Your task to perform on an android device: toggle location history Image 0: 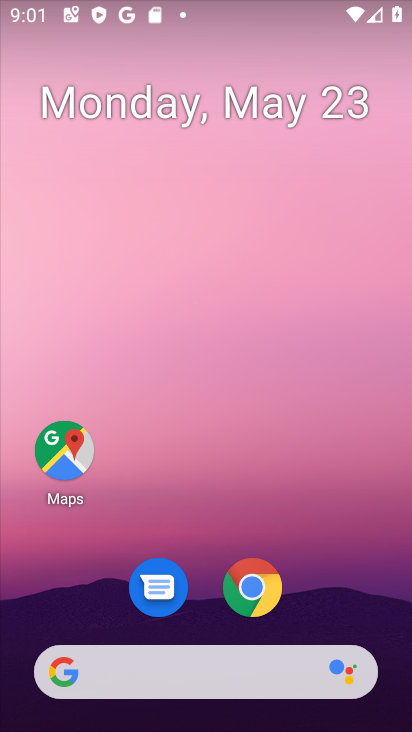
Step 0: drag from (207, 512) to (227, 46)
Your task to perform on an android device: toggle location history Image 1: 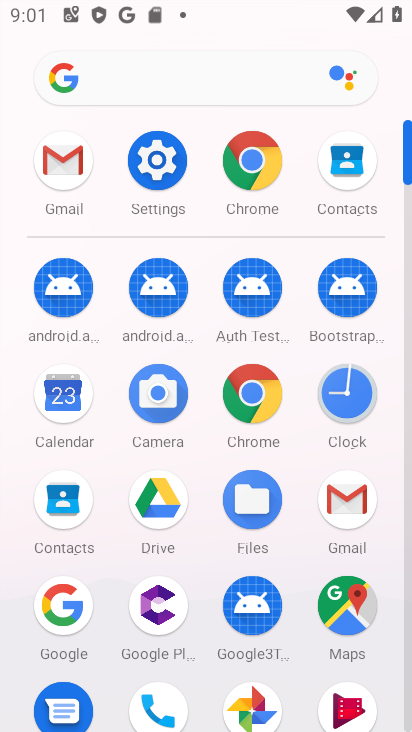
Step 1: click (158, 156)
Your task to perform on an android device: toggle location history Image 2: 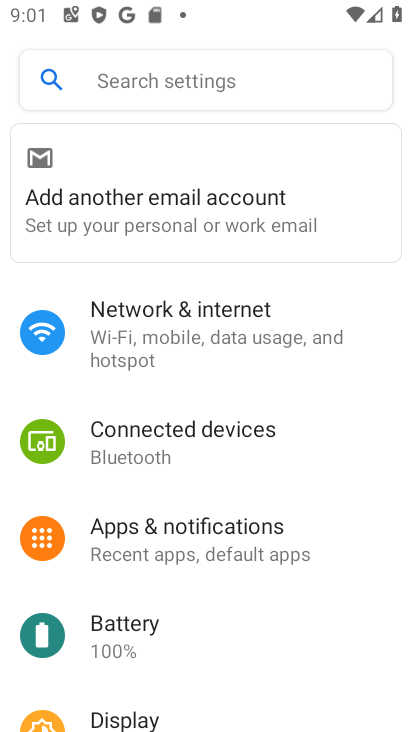
Step 2: drag from (158, 617) to (220, 198)
Your task to perform on an android device: toggle location history Image 3: 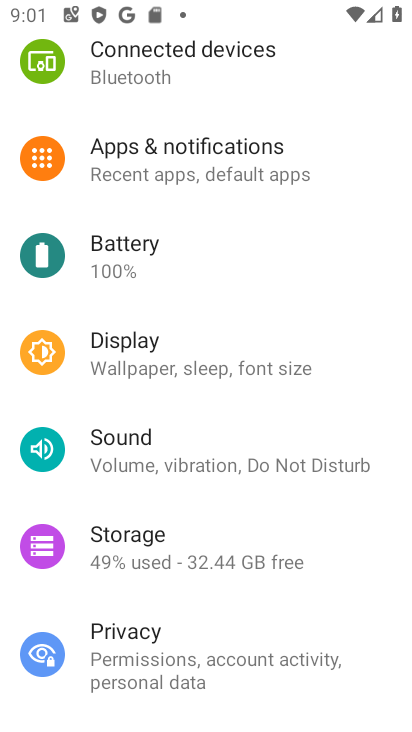
Step 3: drag from (145, 608) to (236, 288)
Your task to perform on an android device: toggle location history Image 4: 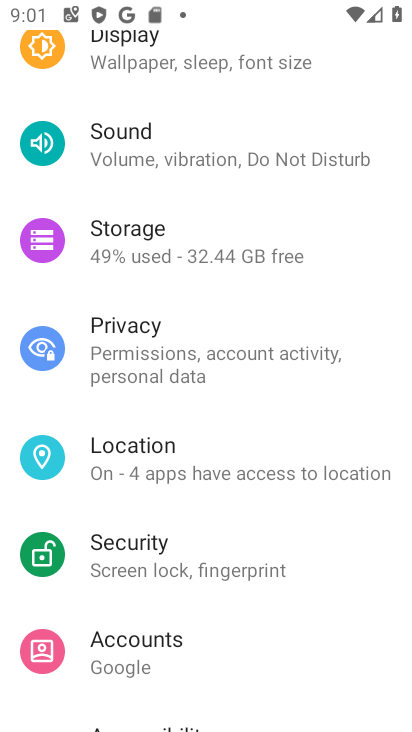
Step 4: click (180, 448)
Your task to perform on an android device: toggle location history Image 5: 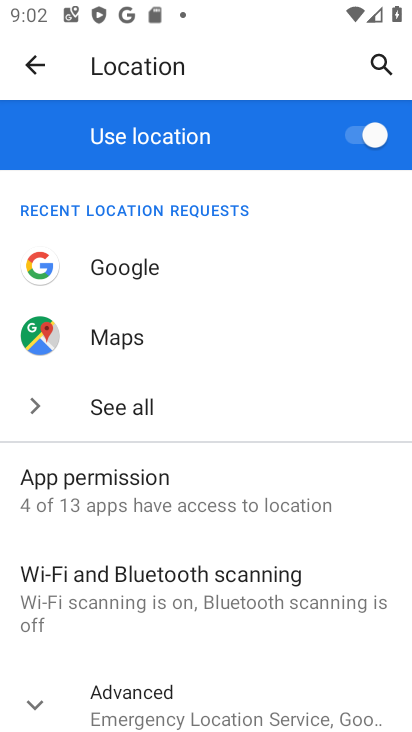
Step 5: click (180, 687)
Your task to perform on an android device: toggle location history Image 6: 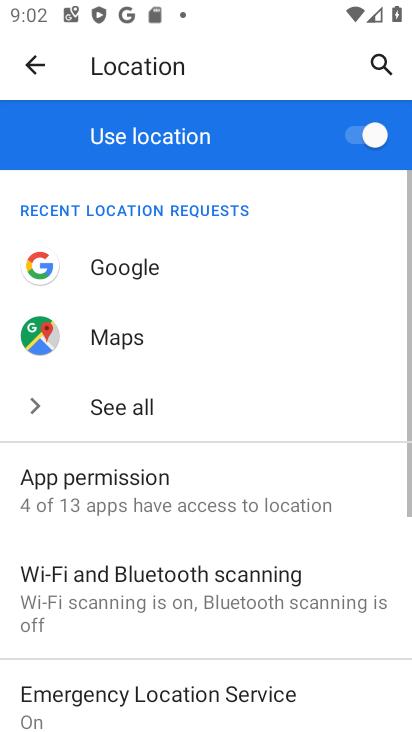
Step 6: drag from (181, 666) to (289, 242)
Your task to perform on an android device: toggle location history Image 7: 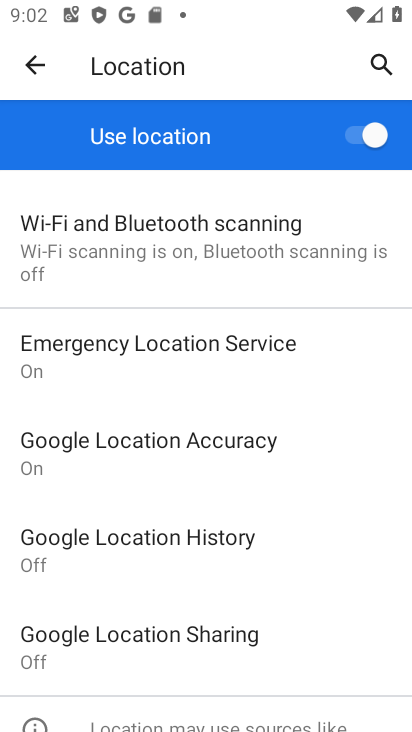
Step 7: click (145, 534)
Your task to perform on an android device: toggle location history Image 8: 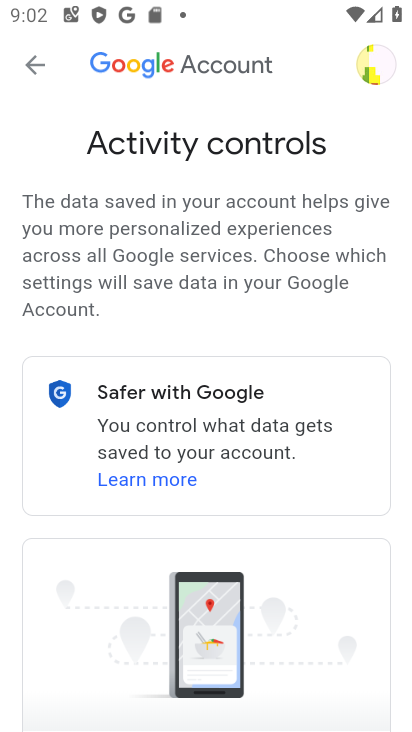
Step 8: drag from (222, 593) to (310, 113)
Your task to perform on an android device: toggle location history Image 9: 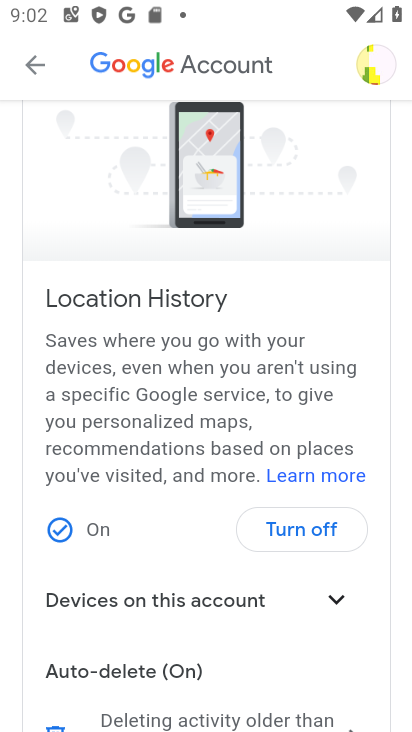
Step 9: click (308, 522)
Your task to perform on an android device: toggle location history Image 10: 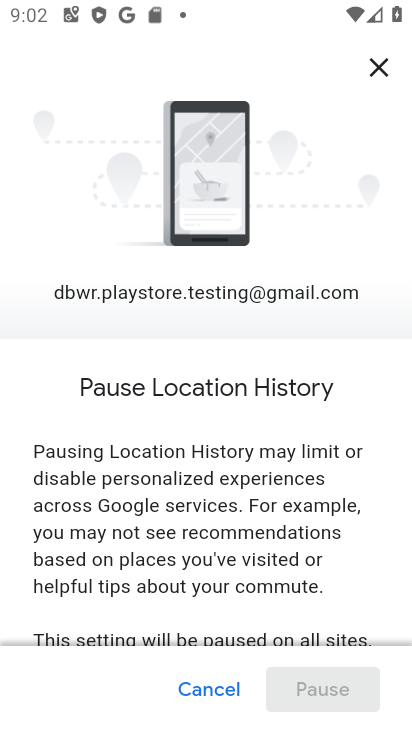
Step 10: drag from (270, 573) to (323, 69)
Your task to perform on an android device: toggle location history Image 11: 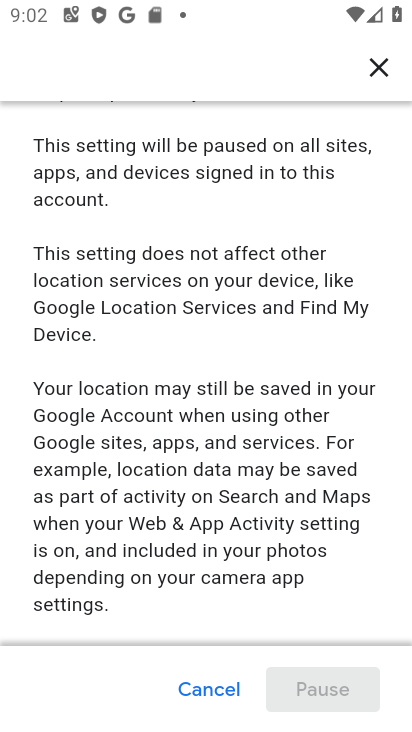
Step 11: drag from (248, 574) to (347, 40)
Your task to perform on an android device: toggle location history Image 12: 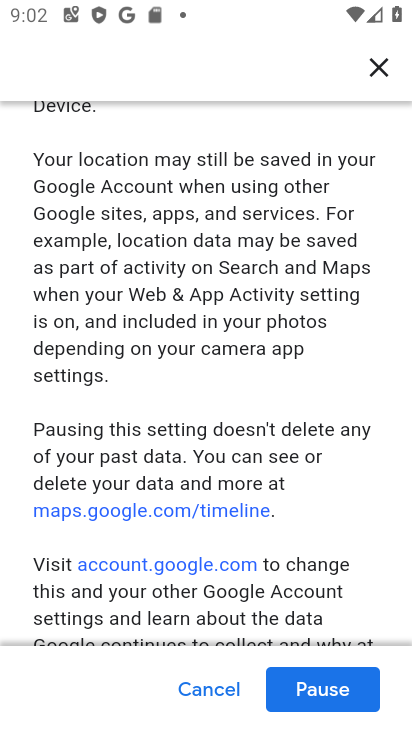
Step 12: click (309, 691)
Your task to perform on an android device: toggle location history Image 13: 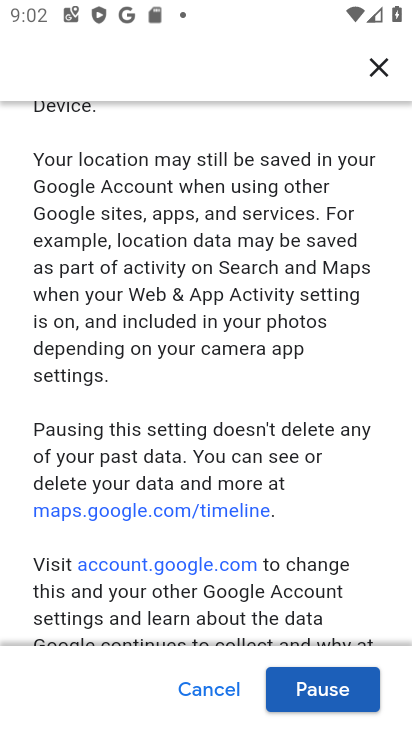
Step 13: click (323, 692)
Your task to perform on an android device: toggle location history Image 14: 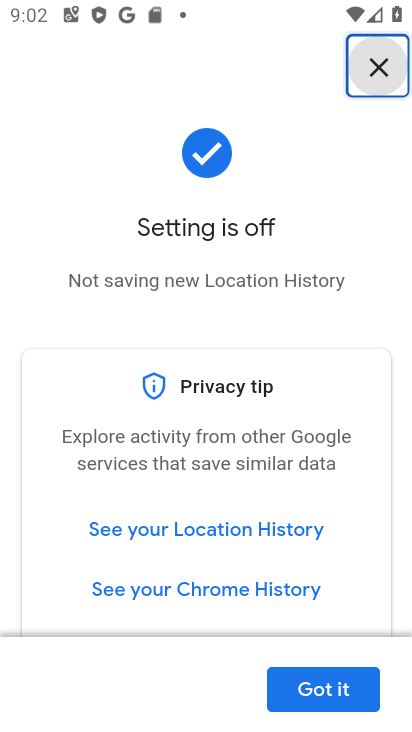
Step 14: click (340, 687)
Your task to perform on an android device: toggle location history Image 15: 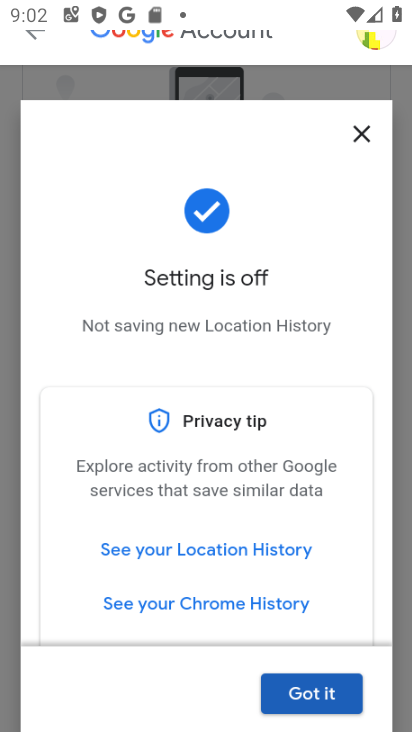
Step 15: task complete